Your task to perform on an android device: uninstall "Yahoo Mail" Image 0: 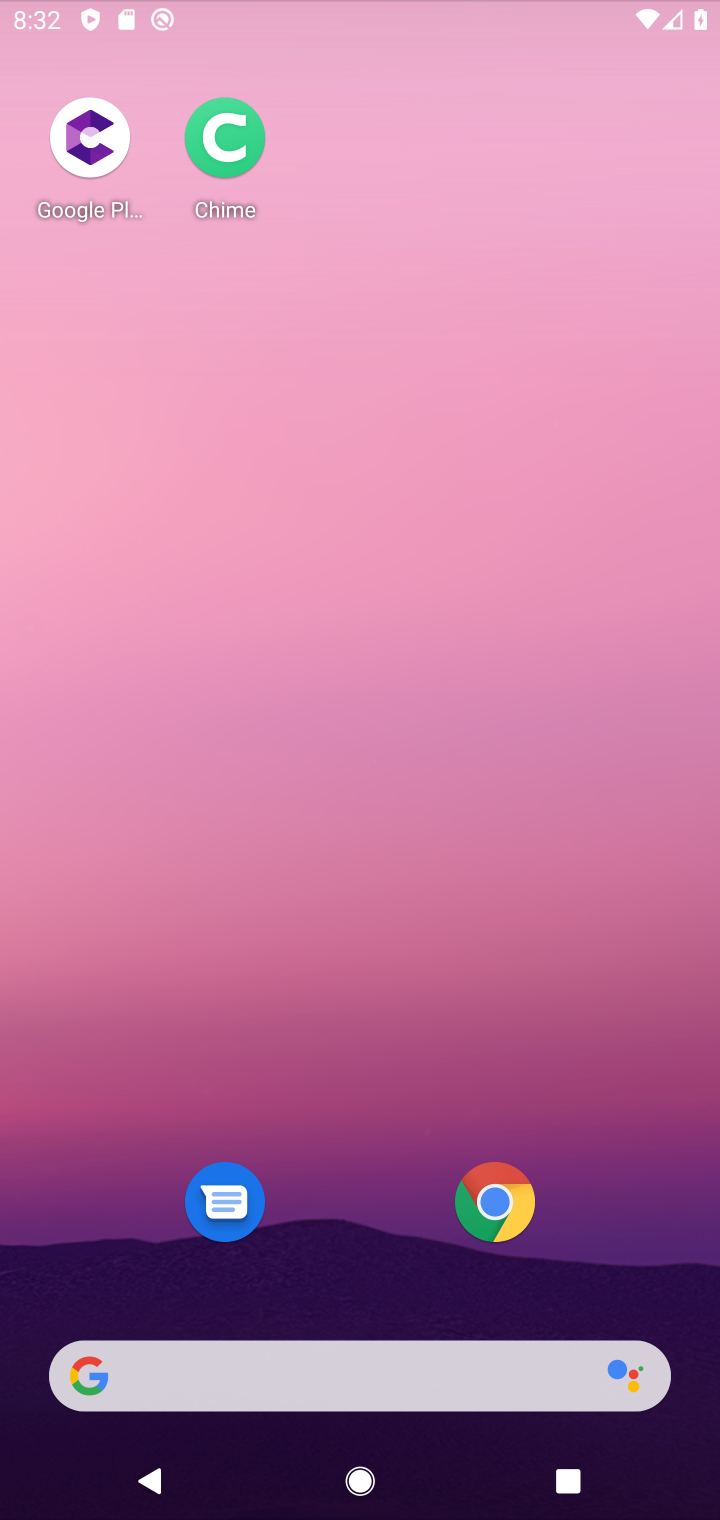
Step 0: press home button
Your task to perform on an android device: uninstall "Yahoo Mail" Image 1: 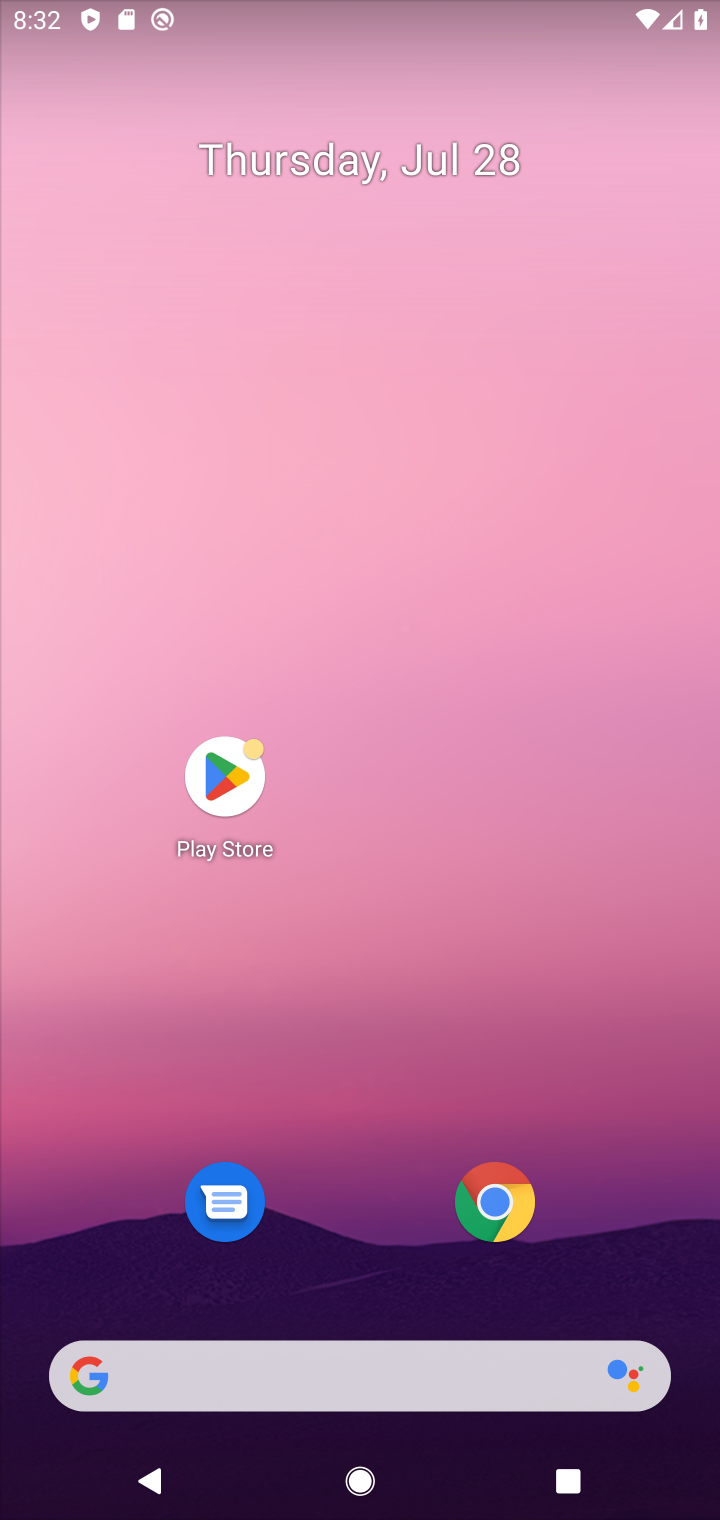
Step 1: click (218, 786)
Your task to perform on an android device: uninstall "Yahoo Mail" Image 2: 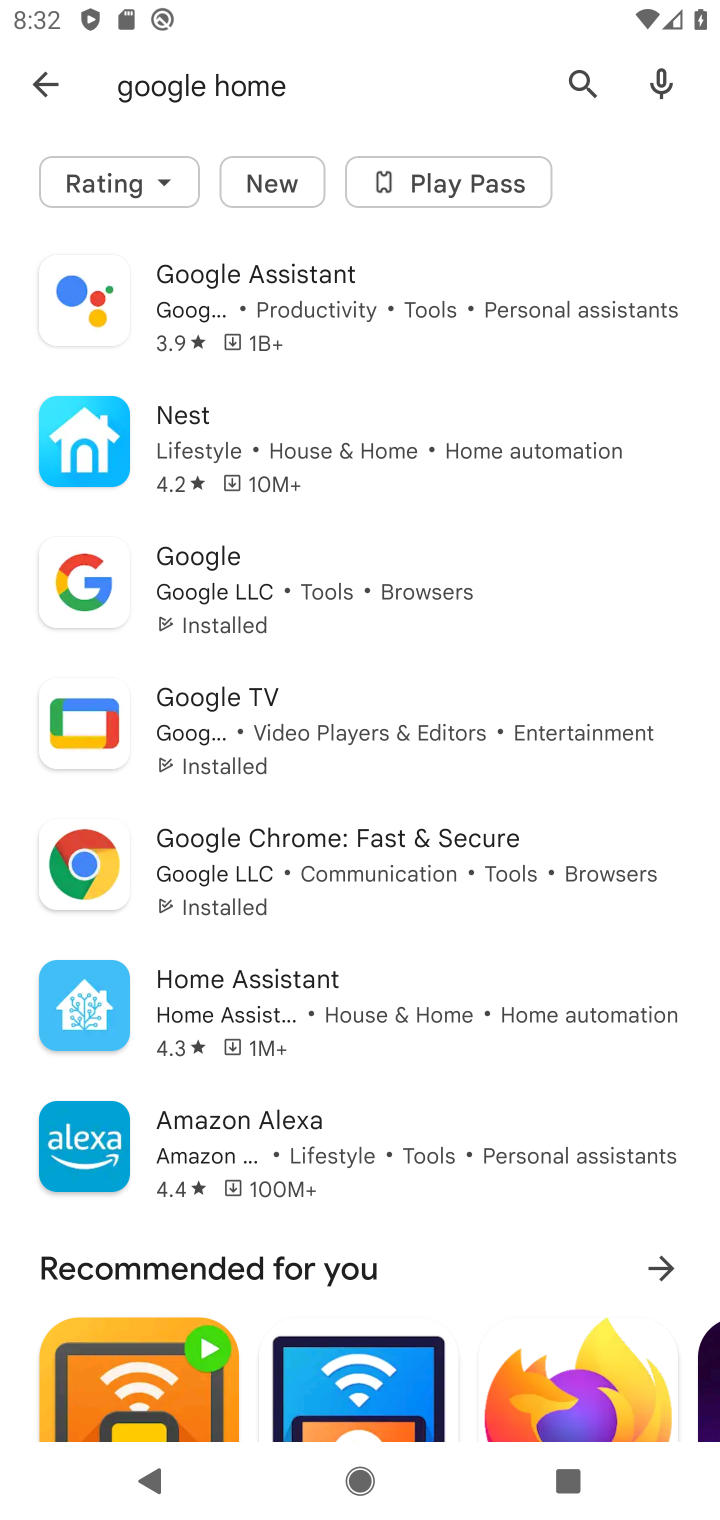
Step 2: click (585, 90)
Your task to perform on an android device: uninstall "Yahoo Mail" Image 3: 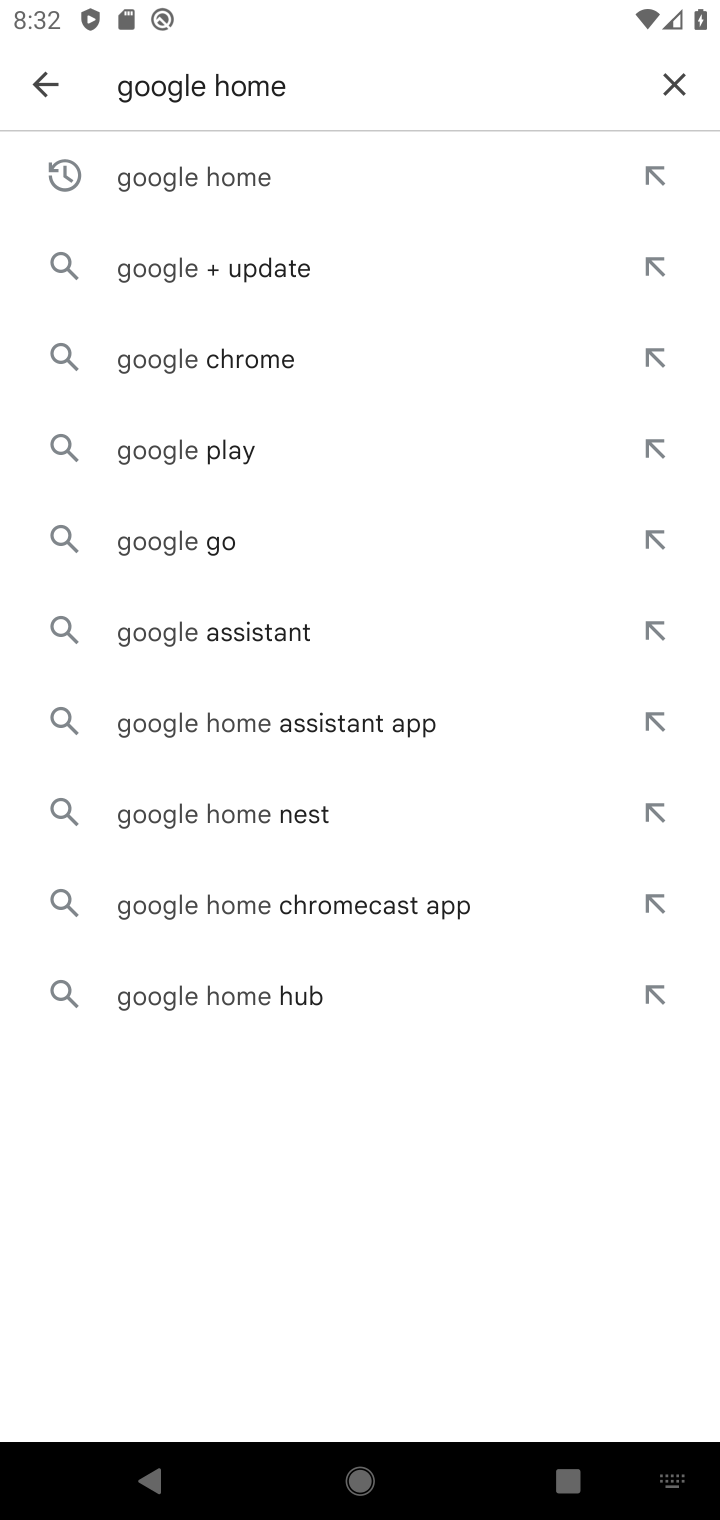
Step 3: click (677, 90)
Your task to perform on an android device: uninstall "Yahoo Mail" Image 4: 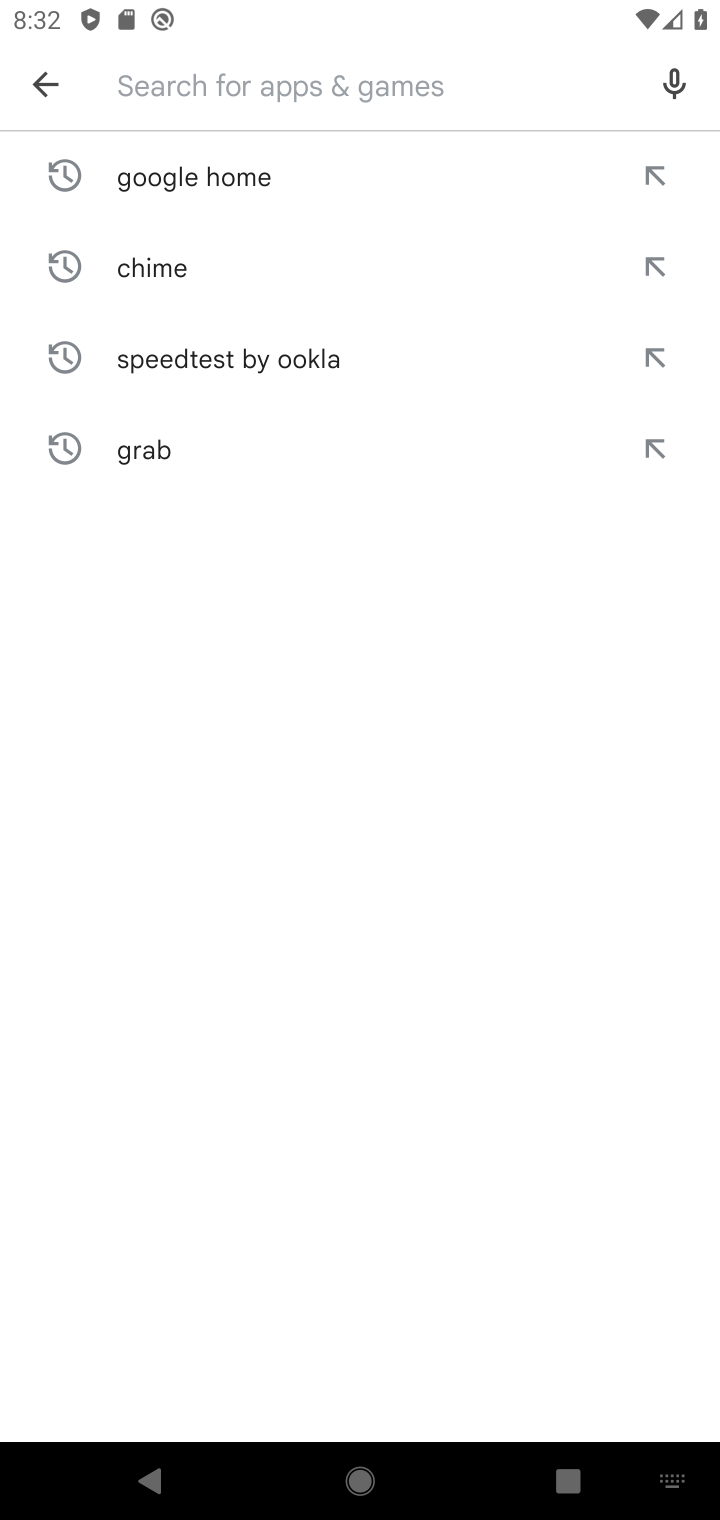
Step 4: click (383, 68)
Your task to perform on an android device: uninstall "Yahoo Mail" Image 5: 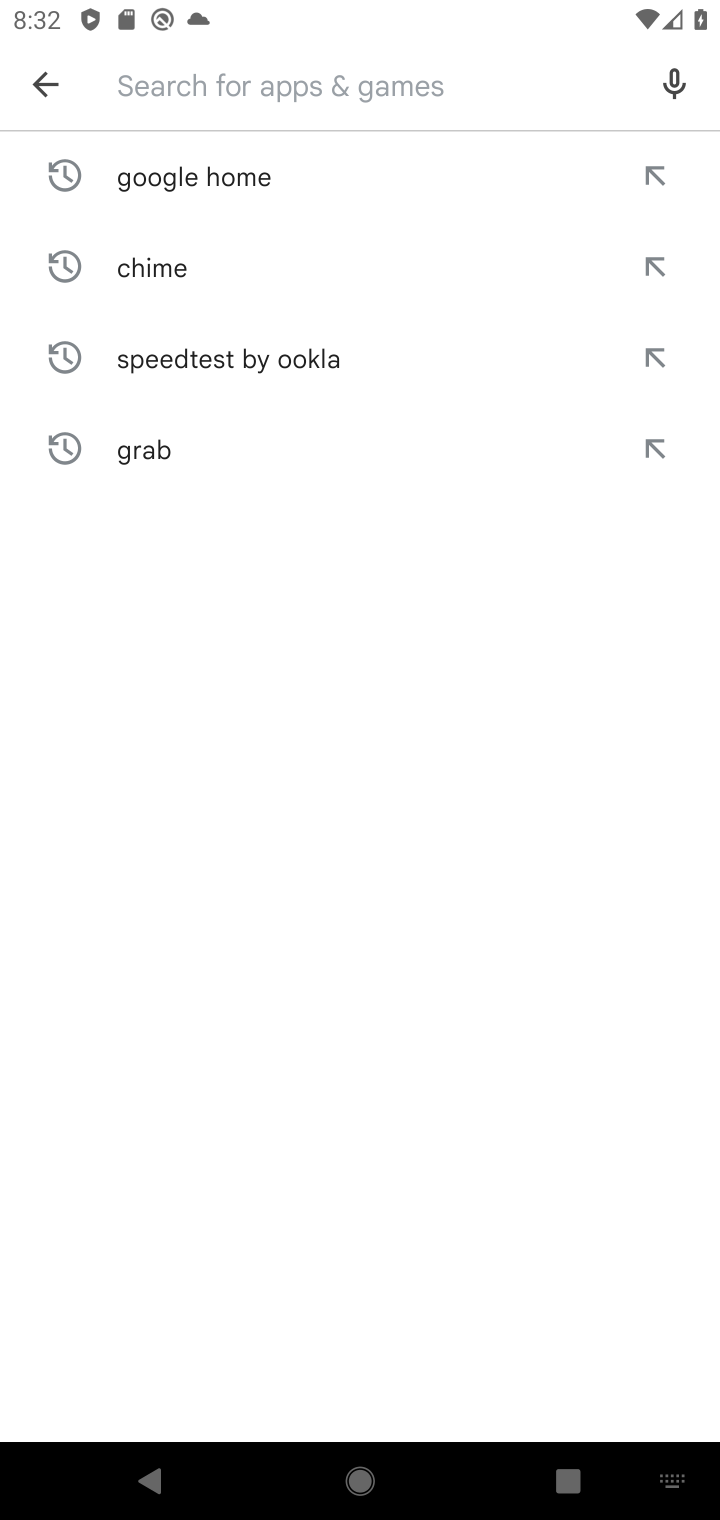
Step 5: type "yahoo mail"
Your task to perform on an android device: uninstall "Yahoo Mail" Image 6: 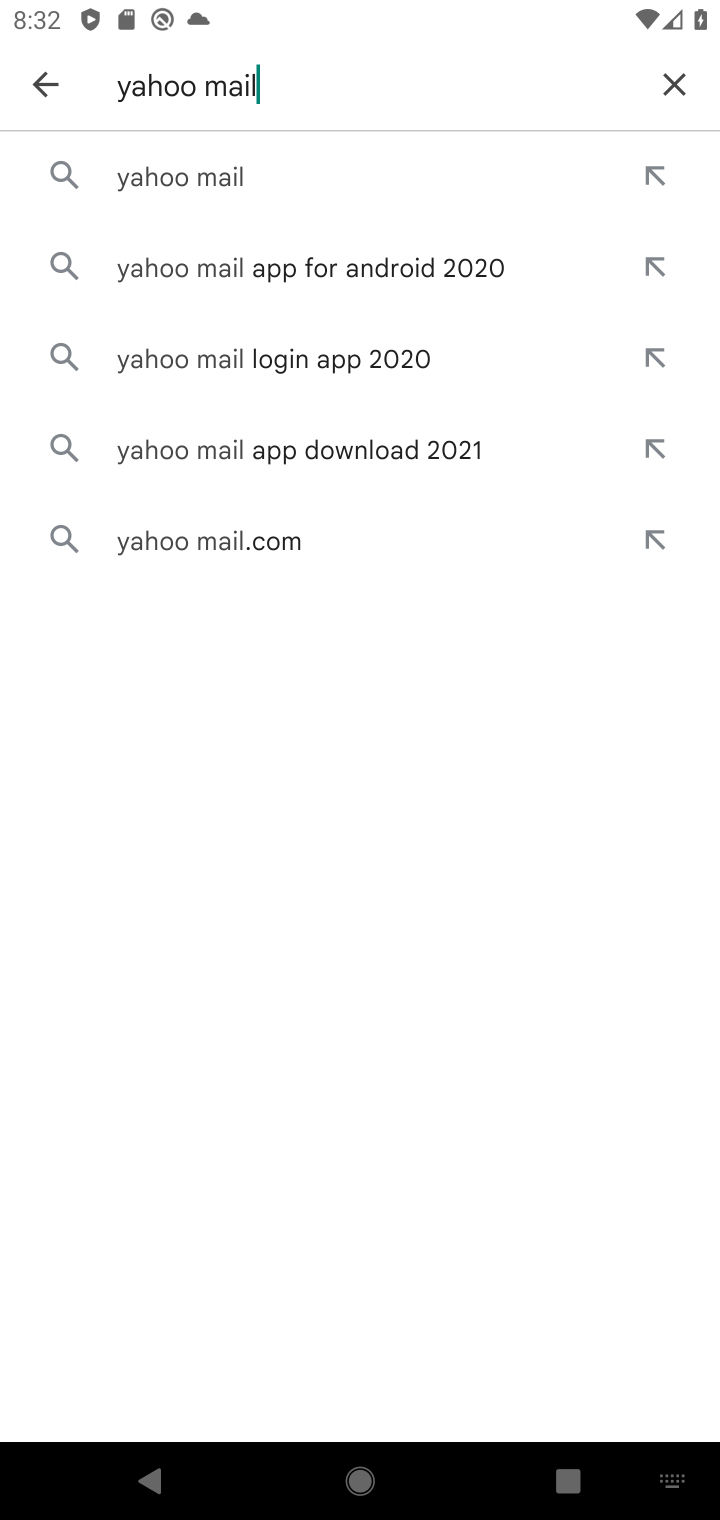
Step 6: click (150, 166)
Your task to perform on an android device: uninstall "Yahoo Mail" Image 7: 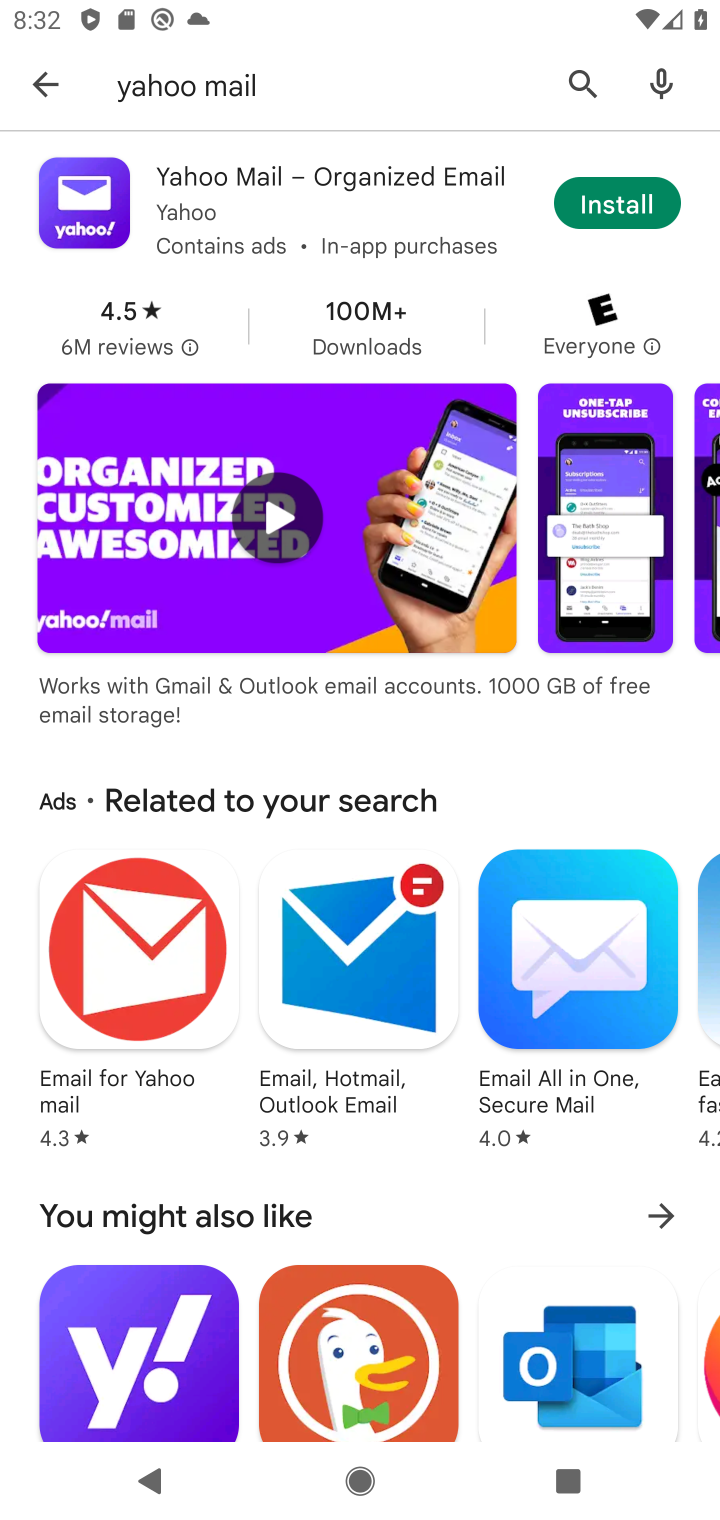
Step 7: task complete